Your task to perform on an android device: Find coffee shops on Maps Image 0: 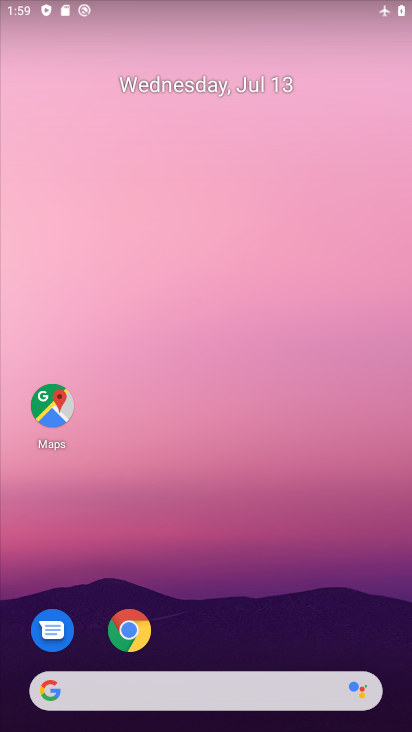
Step 0: drag from (239, 702) to (4, 93)
Your task to perform on an android device: Find coffee shops on Maps Image 1: 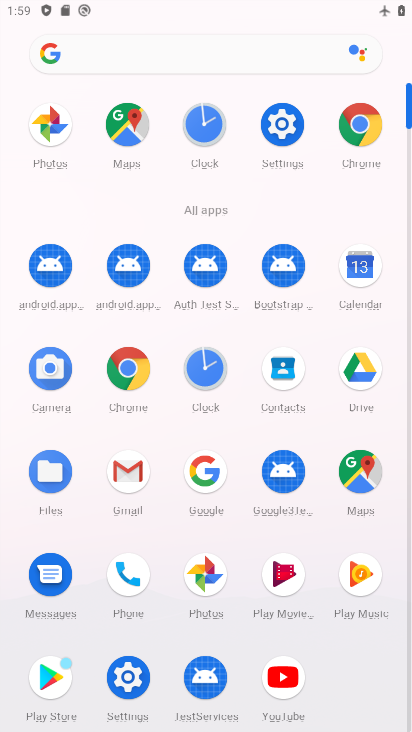
Step 1: click (355, 476)
Your task to perform on an android device: Find coffee shops on Maps Image 2: 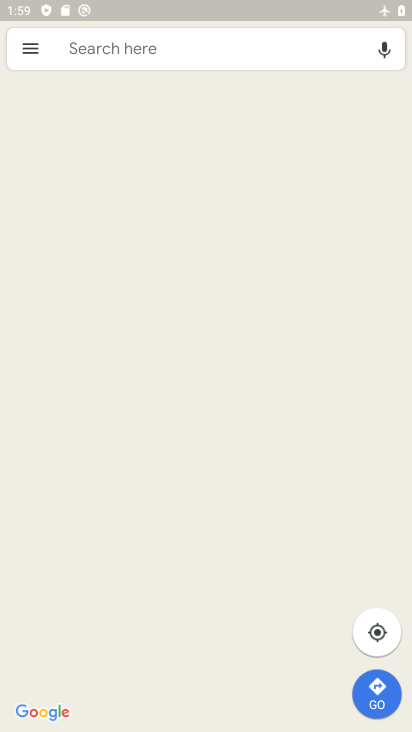
Step 2: click (72, 260)
Your task to perform on an android device: Find coffee shops on Maps Image 3: 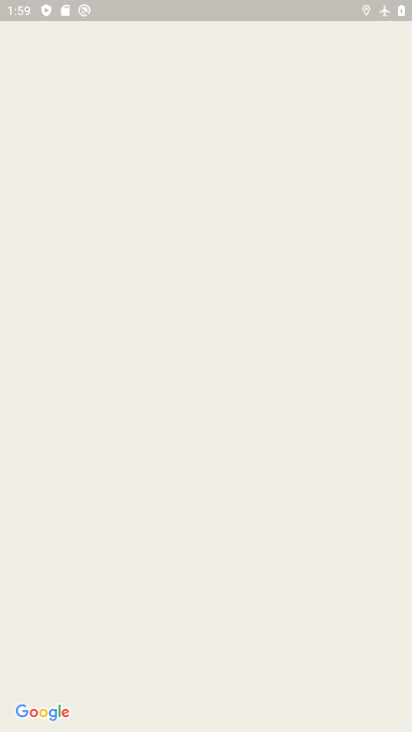
Step 3: drag from (256, 606) to (221, 230)
Your task to perform on an android device: Find coffee shops on Maps Image 4: 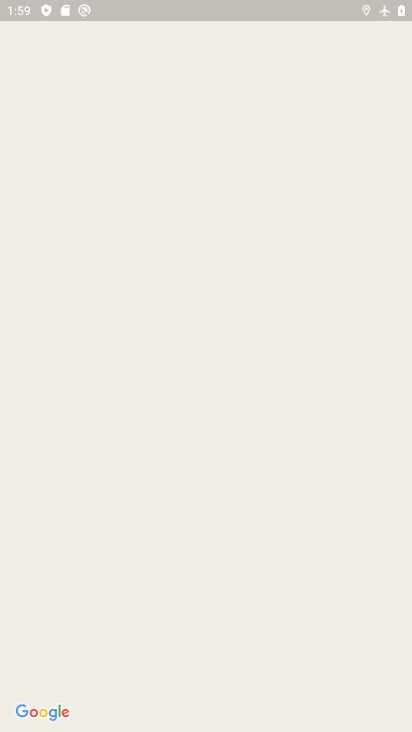
Step 4: click (125, 79)
Your task to perform on an android device: Find coffee shops on Maps Image 5: 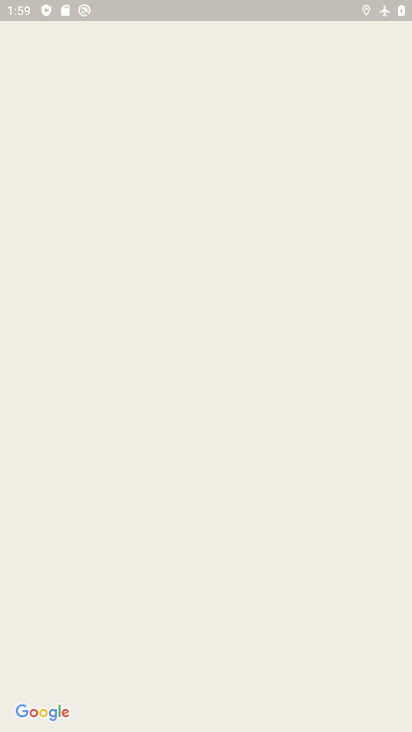
Step 5: click (125, 79)
Your task to perform on an android device: Find coffee shops on Maps Image 6: 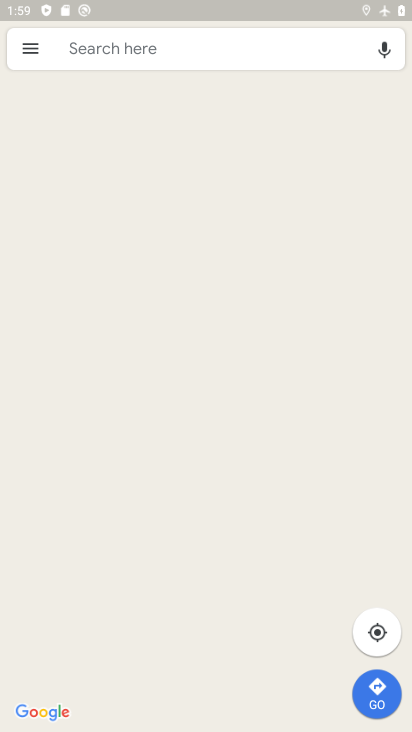
Step 6: click (81, 36)
Your task to perform on an android device: Find coffee shops on Maps Image 7: 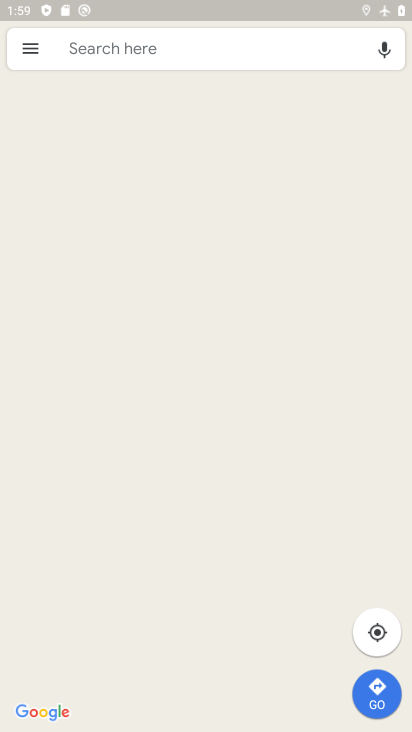
Step 7: click (81, 36)
Your task to perform on an android device: Find coffee shops on Maps Image 8: 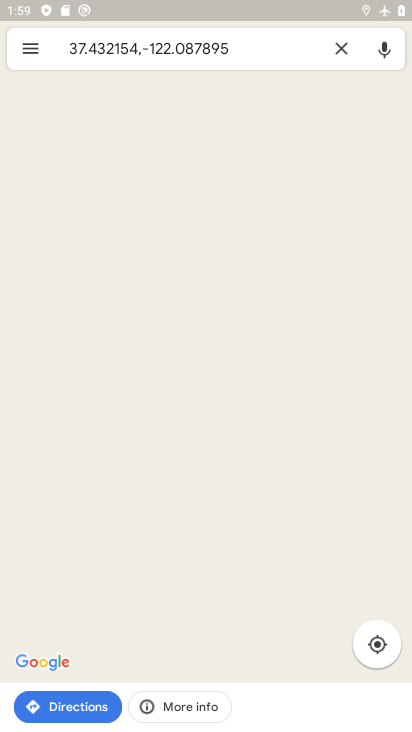
Step 8: click (79, 37)
Your task to perform on an android device: Find coffee shops on Maps Image 9: 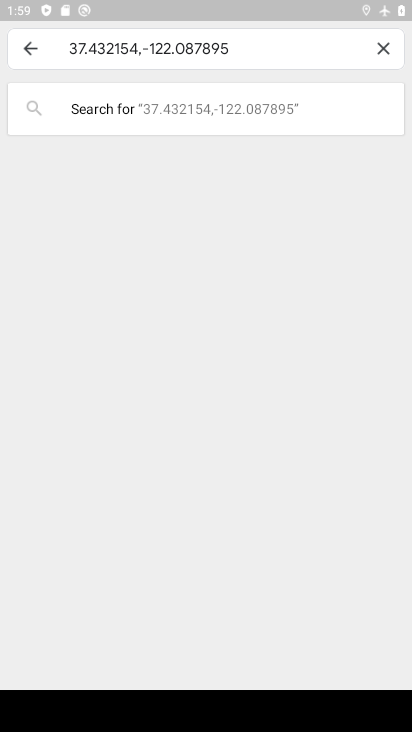
Step 9: click (383, 45)
Your task to perform on an android device: Find coffee shops on Maps Image 10: 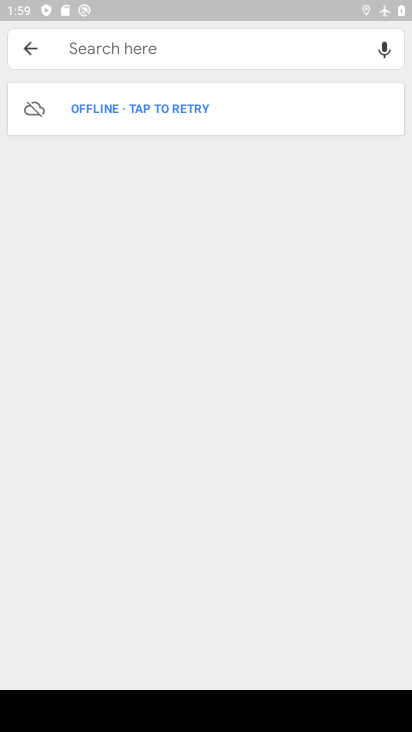
Step 10: type "coffee"
Your task to perform on an android device: Find coffee shops on Maps Image 11: 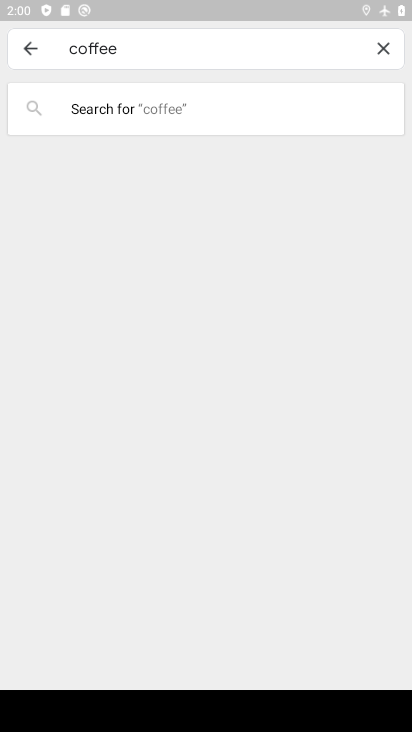
Step 11: task complete